Your task to perform on an android device: open the mobile data screen to see how much data has been used Image 0: 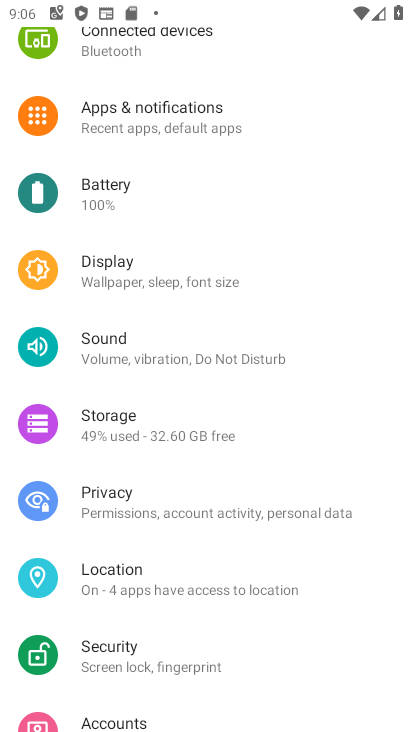
Step 0: drag from (356, 152) to (267, 638)
Your task to perform on an android device: open the mobile data screen to see how much data has been used Image 1: 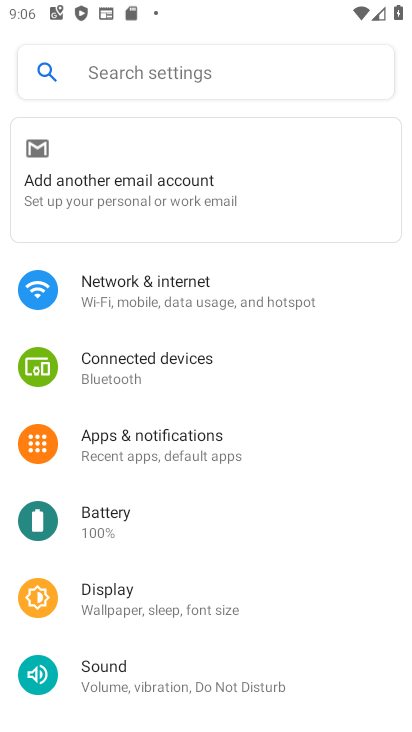
Step 1: click (197, 286)
Your task to perform on an android device: open the mobile data screen to see how much data has been used Image 2: 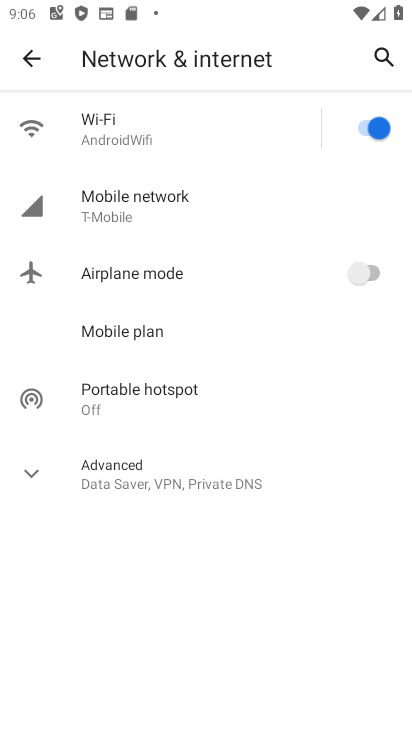
Step 2: click (205, 216)
Your task to perform on an android device: open the mobile data screen to see how much data has been used Image 3: 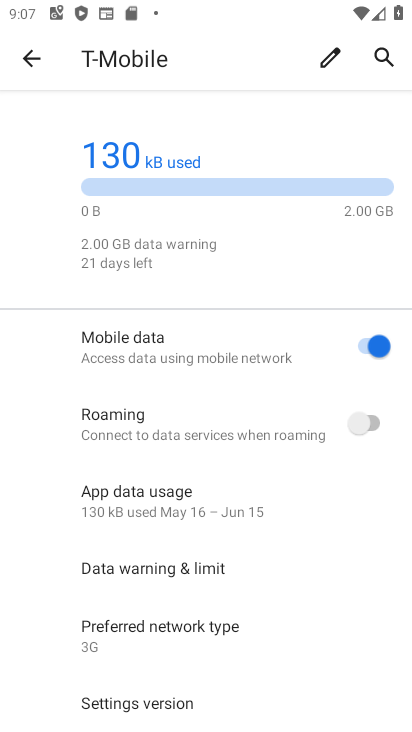
Step 3: task complete